Your task to perform on an android device: check out phone information Image 0: 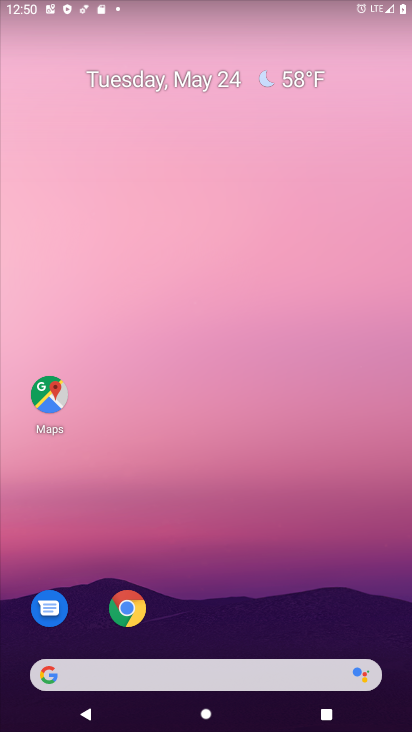
Step 0: press home button
Your task to perform on an android device: check out phone information Image 1: 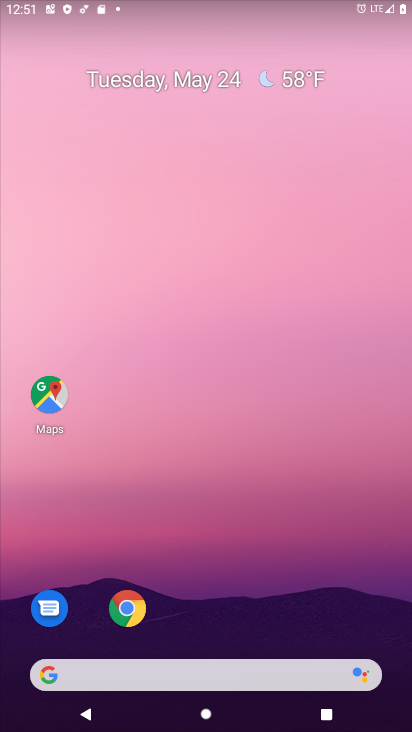
Step 1: drag from (243, 695) to (203, 148)
Your task to perform on an android device: check out phone information Image 2: 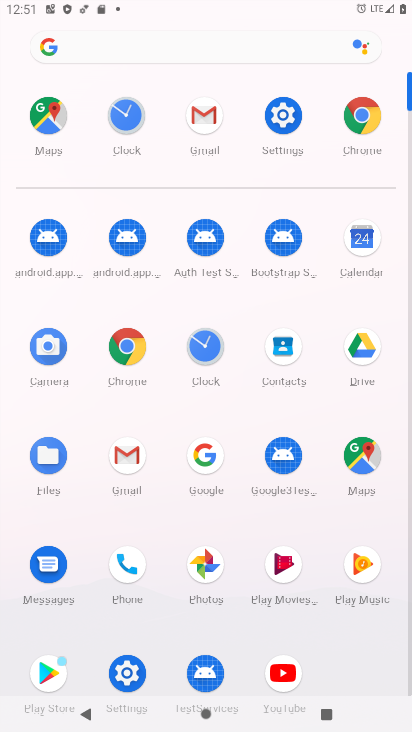
Step 2: click (286, 129)
Your task to perform on an android device: check out phone information Image 3: 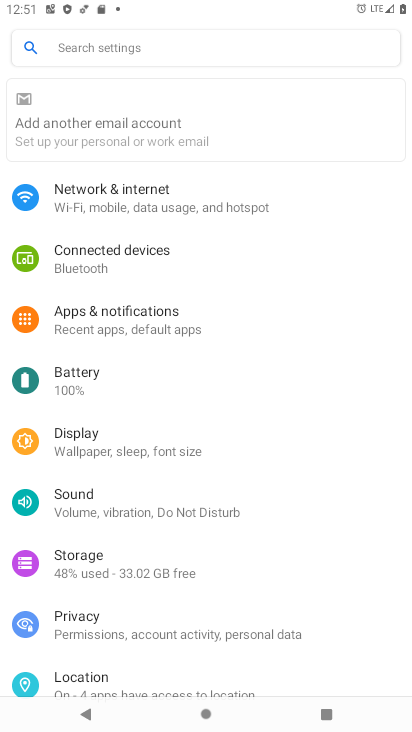
Step 3: click (136, 50)
Your task to perform on an android device: check out phone information Image 4: 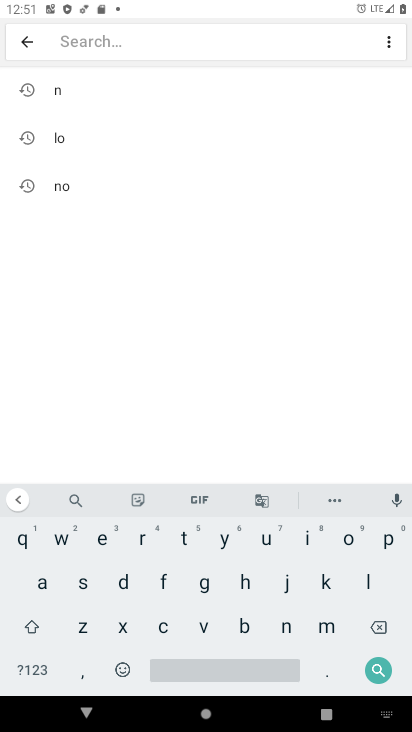
Step 4: click (52, 581)
Your task to perform on an android device: check out phone information Image 5: 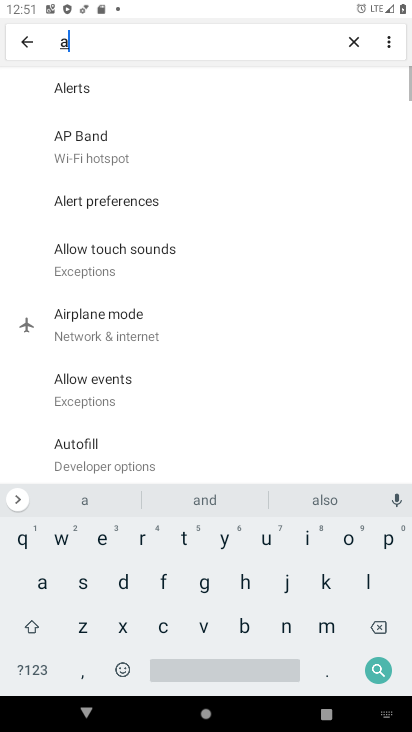
Step 5: click (235, 628)
Your task to perform on an android device: check out phone information Image 6: 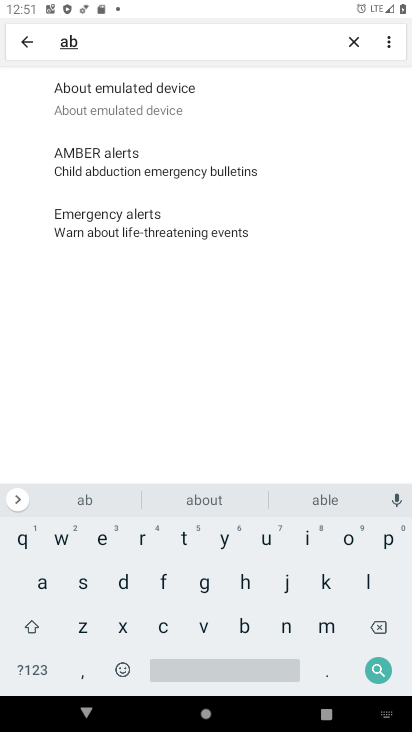
Step 6: click (138, 102)
Your task to perform on an android device: check out phone information Image 7: 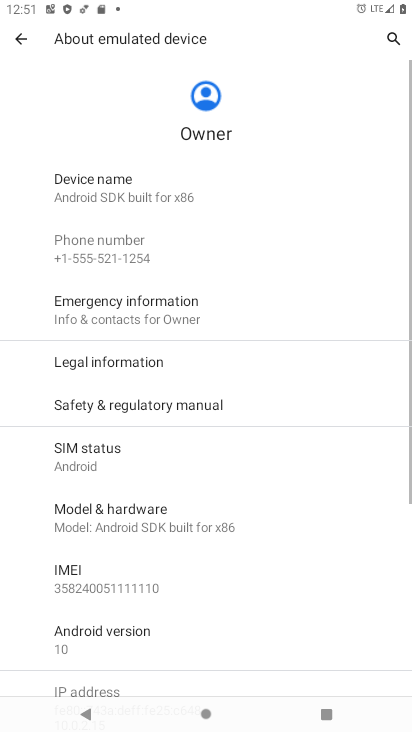
Step 7: task complete